Your task to perform on an android device: Open accessibility settings Image 0: 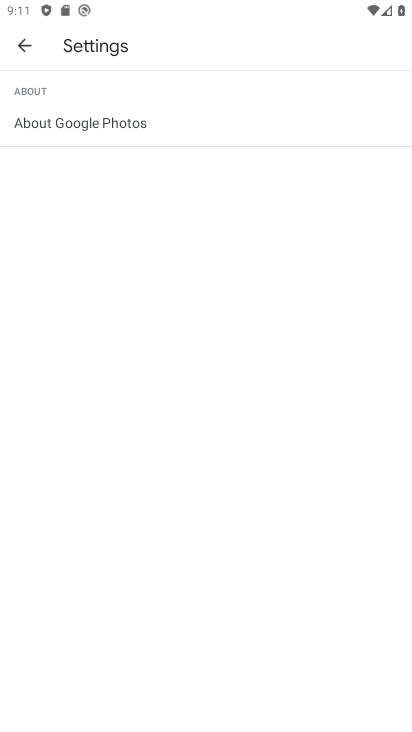
Step 0: click (24, 40)
Your task to perform on an android device: Open accessibility settings Image 1: 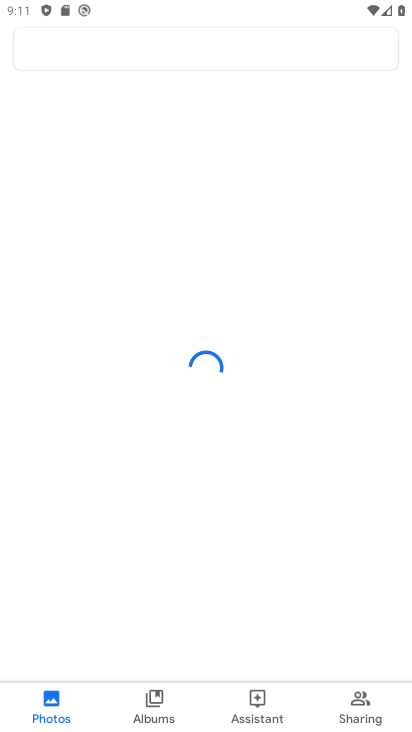
Step 1: press back button
Your task to perform on an android device: Open accessibility settings Image 2: 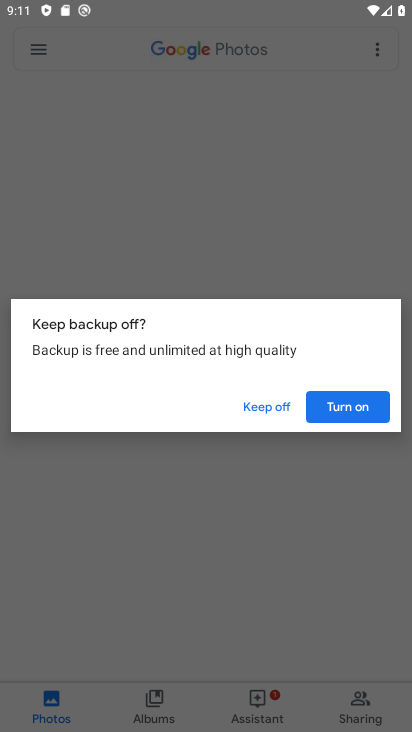
Step 2: press home button
Your task to perform on an android device: Open accessibility settings Image 3: 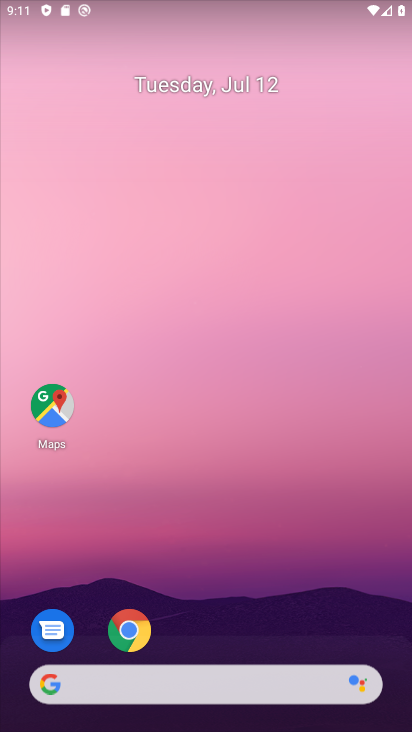
Step 3: drag from (193, 635) to (270, 29)
Your task to perform on an android device: Open accessibility settings Image 4: 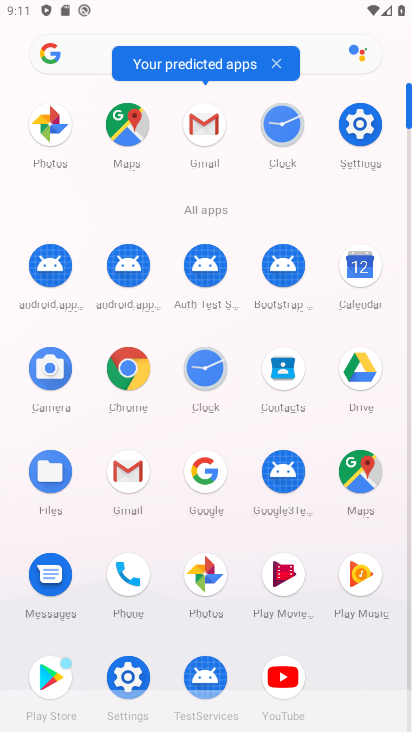
Step 4: click (360, 129)
Your task to perform on an android device: Open accessibility settings Image 5: 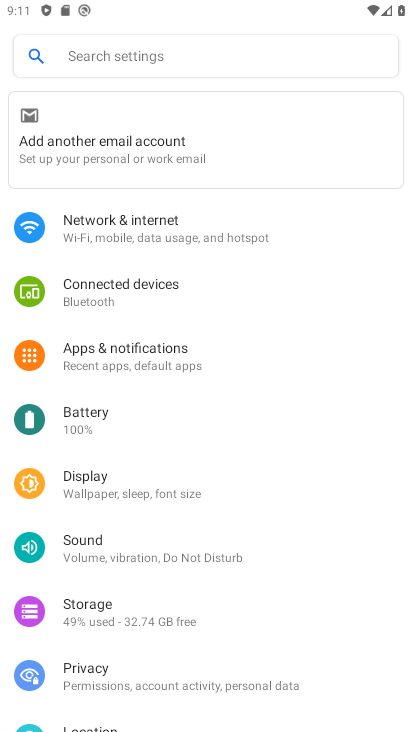
Step 5: drag from (149, 670) to (229, 213)
Your task to perform on an android device: Open accessibility settings Image 6: 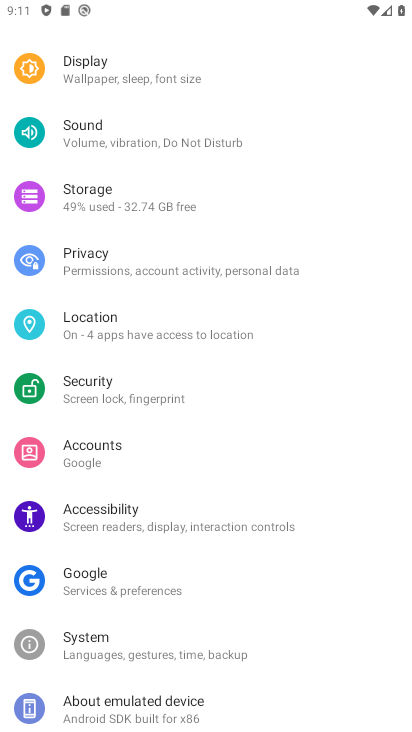
Step 6: click (112, 514)
Your task to perform on an android device: Open accessibility settings Image 7: 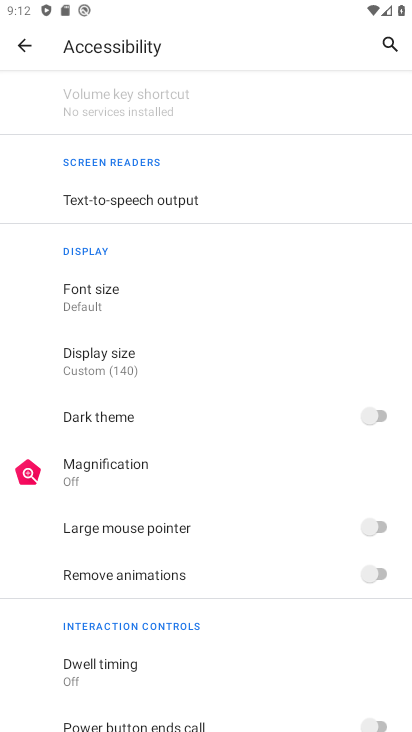
Step 7: task complete